Your task to perform on an android device: turn off priority inbox in the gmail app Image 0: 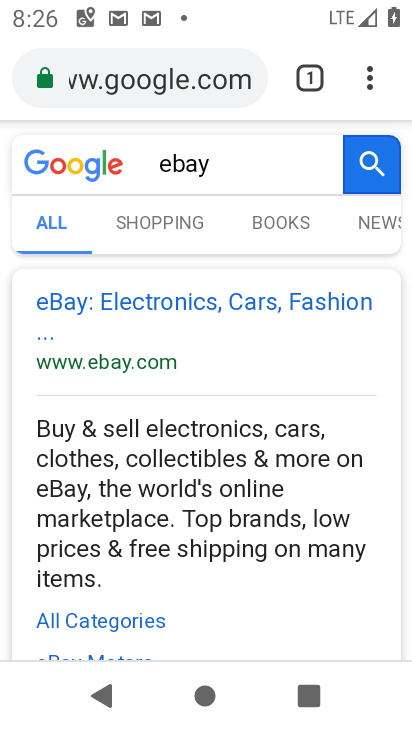
Step 0: press home button
Your task to perform on an android device: turn off priority inbox in the gmail app Image 1: 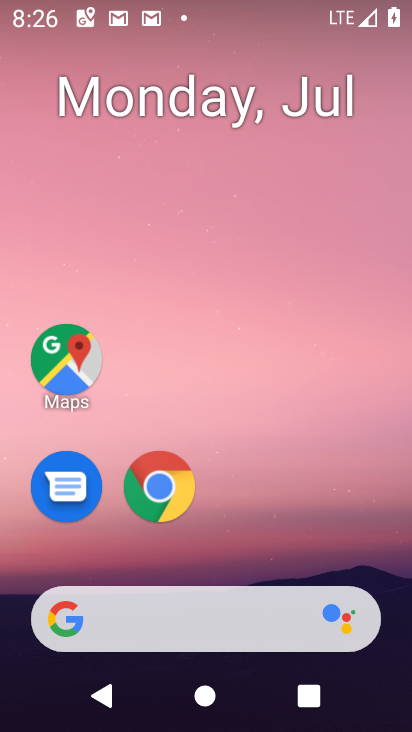
Step 1: drag from (363, 554) to (366, 112)
Your task to perform on an android device: turn off priority inbox in the gmail app Image 2: 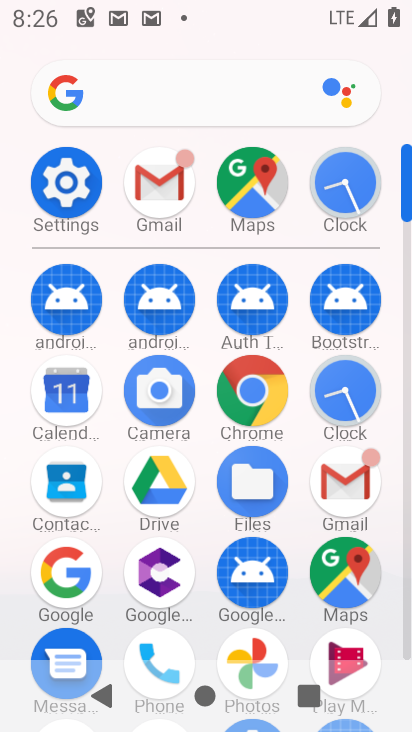
Step 2: click (342, 474)
Your task to perform on an android device: turn off priority inbox in the gmail app Image 3: 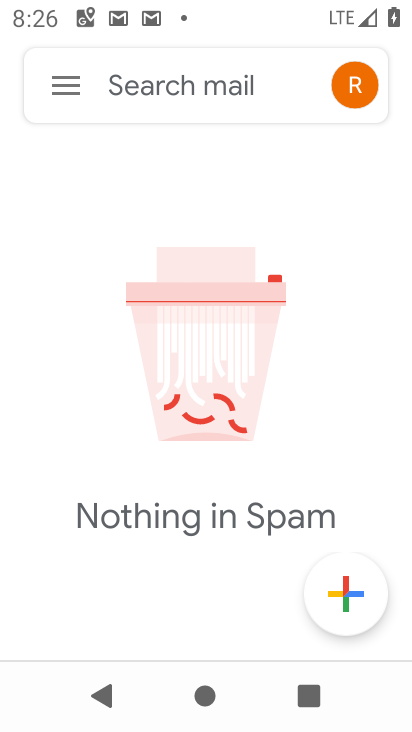
Step 3: click (64, 89)
Your task to perform on an android device: turn off priority inbox in the gmail app Image 4: 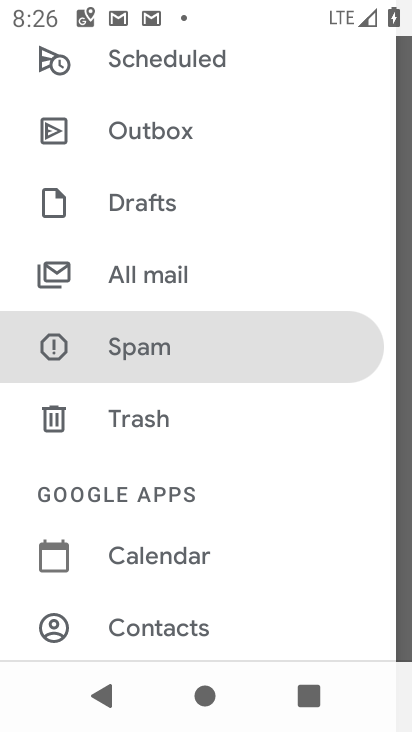
Step 4: drag from (324, 201) to (326, 329)
Your task to perform on an android device: turn off priority inbox in the gmail app Image 5: 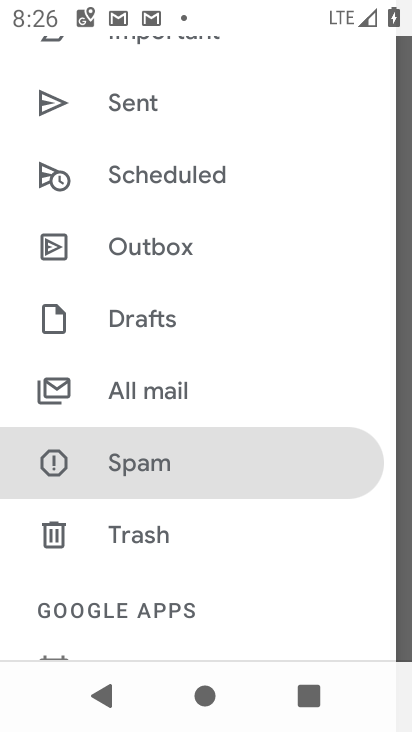
Step 5: drag from (326, 215) to (330, 339)
Your task to perform on an android device: turn off priority inbox in the gmail app Image 6: 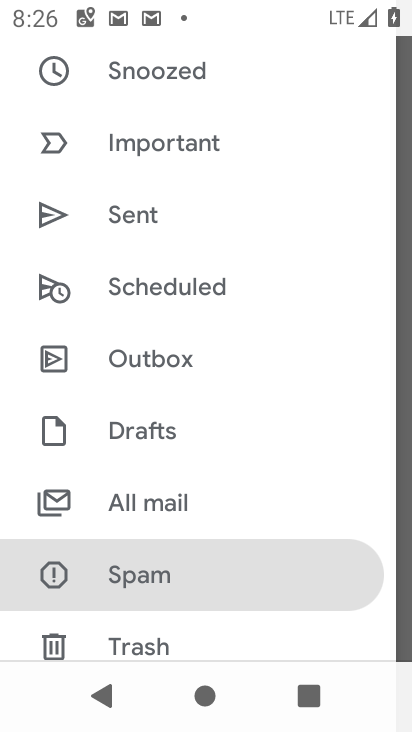
Step 6: drag from (323, 216) to (318, 360)
Your task to perform on an android device: turn off priority inbox in the gmail app Image 7: 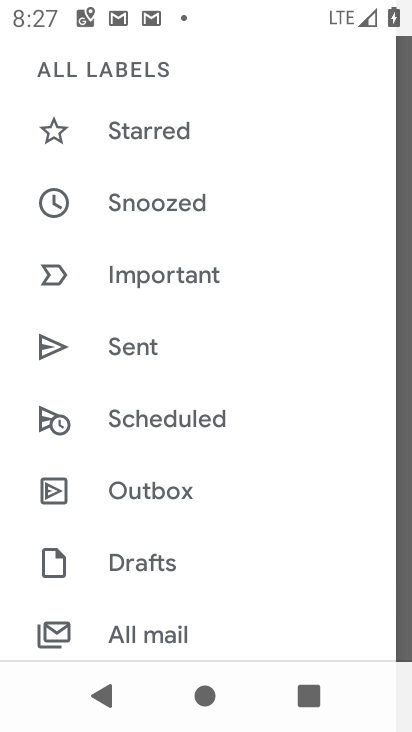
Step 7: drag from (344, 204) to (337, 346)
Your task to perform on an android device: turn off priority inbox in the gmail app Image 8: 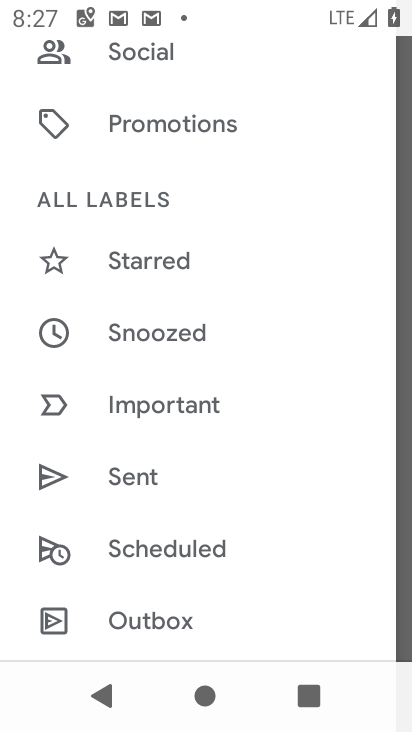
Step 8: drag from (328, 146) to (334, 338)
Your task to perform on an android device: turn off priority inbox in the gmail app Image 9: 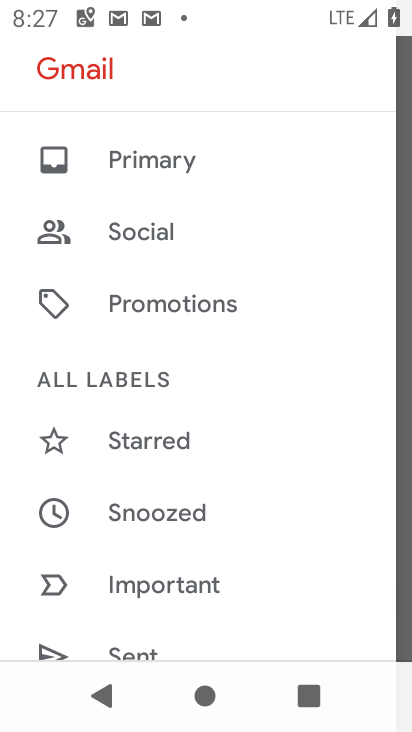
Step 9: drag from (333, 142) to (331, 299)
Your task to perform on an android device: turn off priority inbox in the gmail app Image 10: 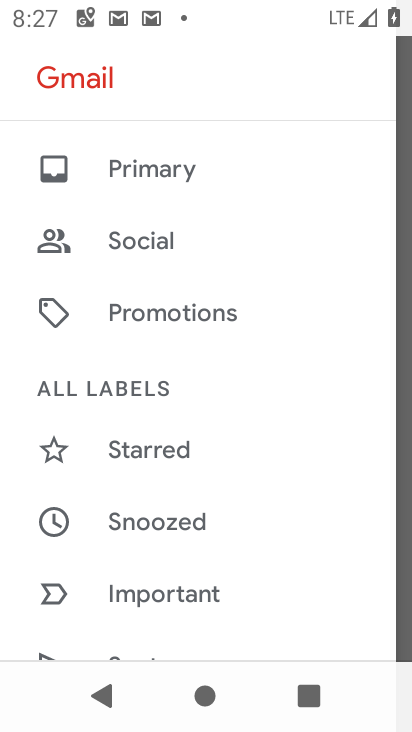
Step 10: drag from (327, 411) to (338, 272)
Your task to perform on an android device: turn off priority inbox in the gmail app Image 11: 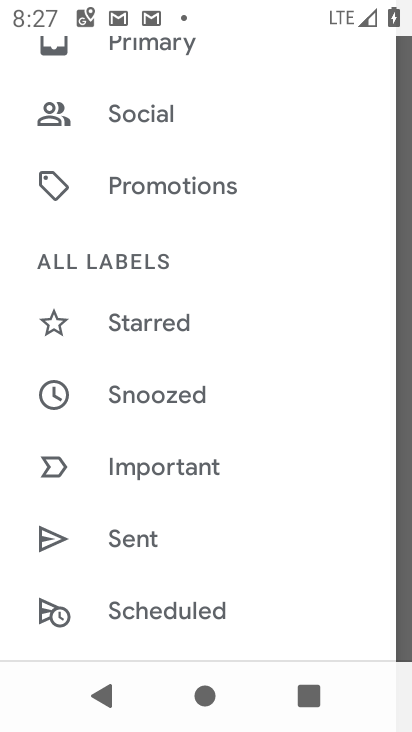
Step 11: drag from (323, 467) to (318, 304)
Your task to perform on an android device: turn off priority inbox in the gmail app Image 12: 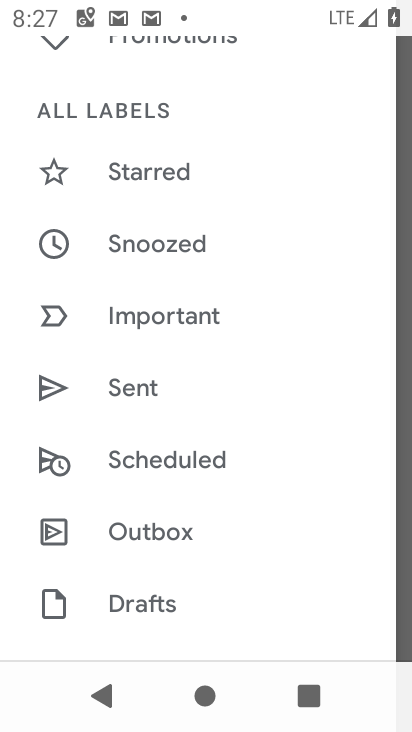
Step 12: drag from (319, 496) to (327, 237)
Your task to perform on an android device: turn off priority inbox in the gmail app Image 13: 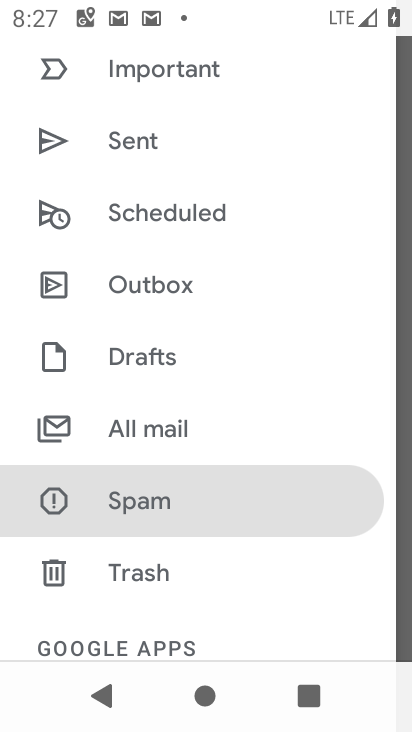
Step 13: drag from (333, 572) to (335, 312)
Your task to perform on an android device: turn off priority inbox in the gmail app Image 14: 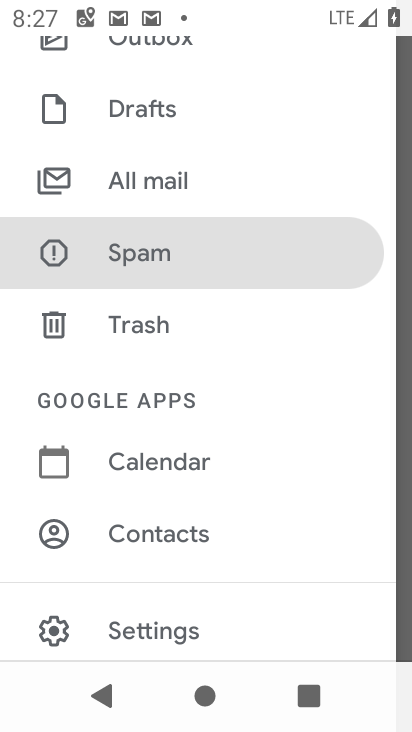
Step 14: drag from (320, 539) to (319, 333)
Your task to perform on an android device: turn off priority inbox in the gmail app Image 15: 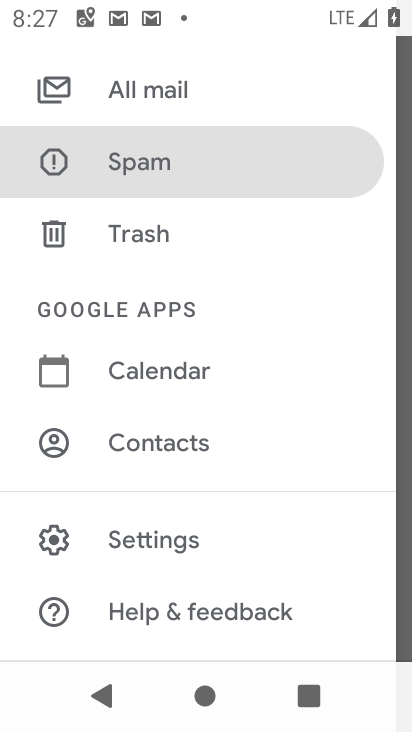
Step 15: click (195, 547)
Your task to perform on an android device: turn off priority inbox in the gmail app Image 16: 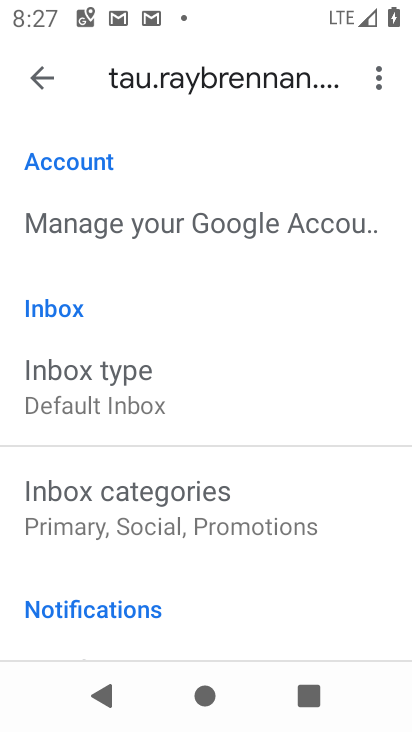
Step 16: click (203, 408)
Your task to perform on an android device: turn off priority inbox in the gmail app Image 17: 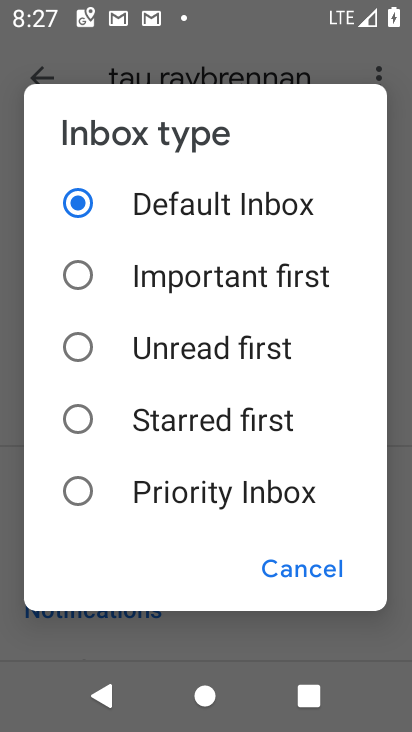
Step 17: task complete